Your task to perform on an android device: toggle translation in the chrome app Image 0: 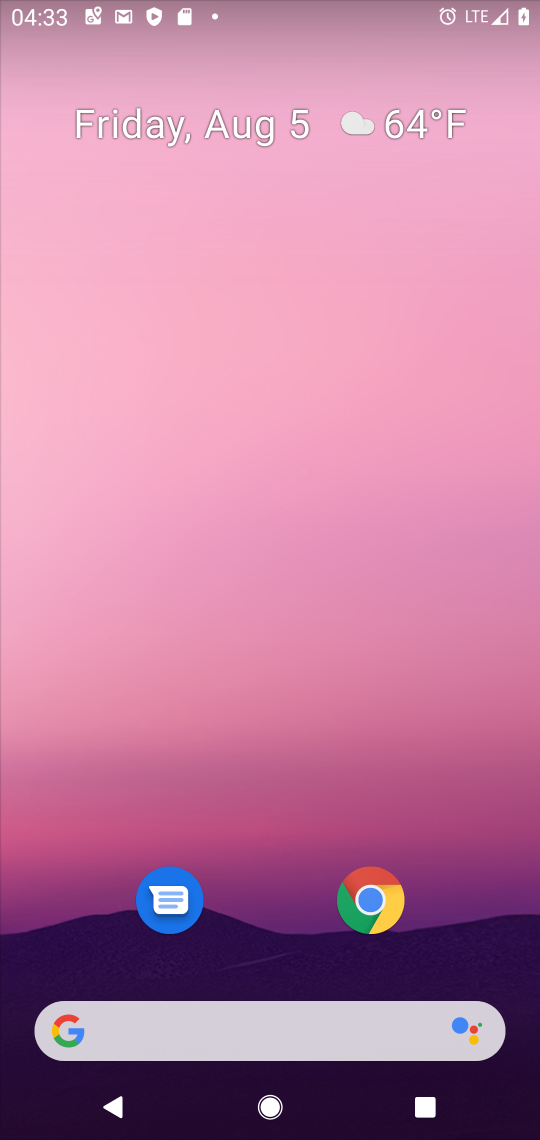
Step 0: press back button
Your task to perform on an android device: toggle translation in the chrome app Image 1: 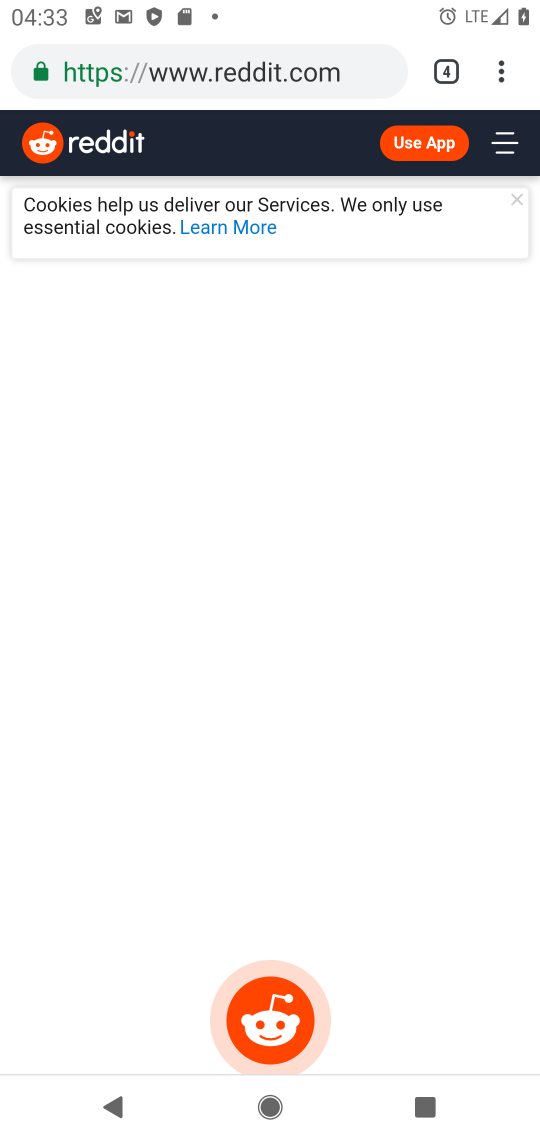
Step 1: click (236, 850)
Your task to perform on an android device: toggle translation in the chrome app Image 2: 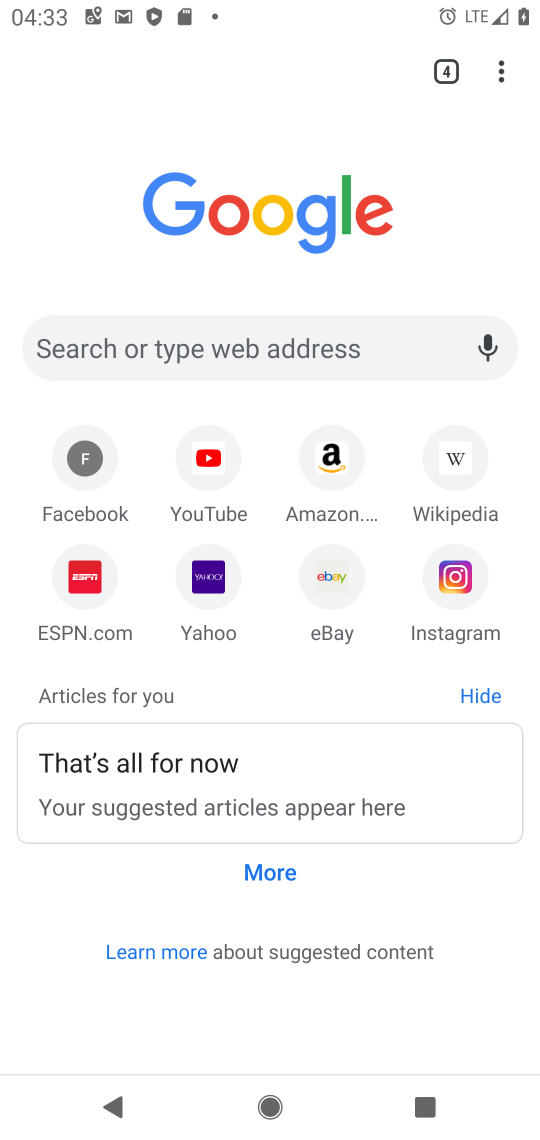
Step 2: drag from (89, 7) to (420, 138)
Your task to perform on an android device: toggle translation in the chrome app Image 3: 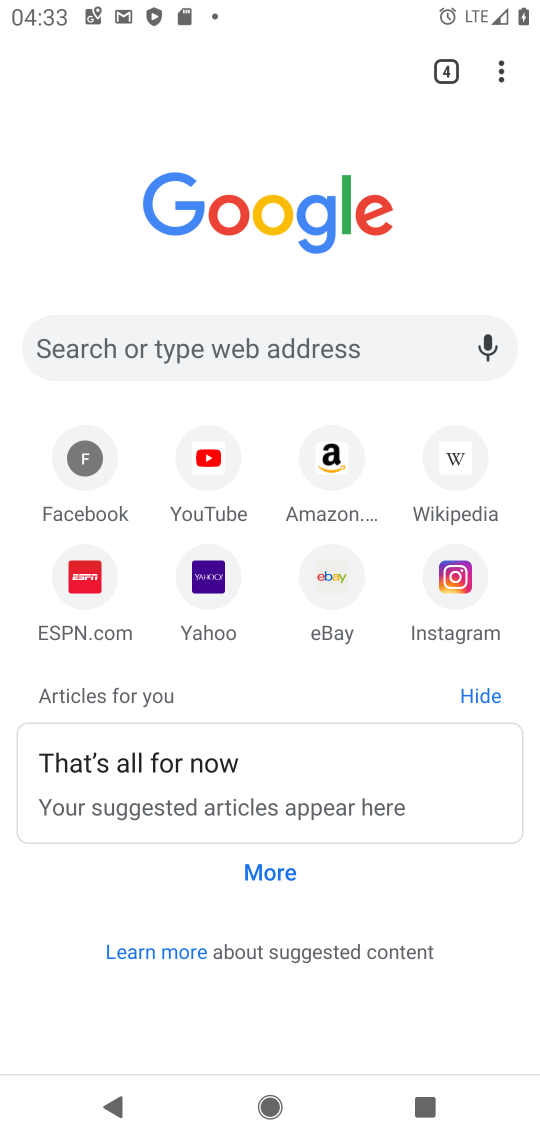
Step 3: drag from (502, 74) to (271, 598)
Your task to perform on an android device: toggle translation in the chrome app Image 4: 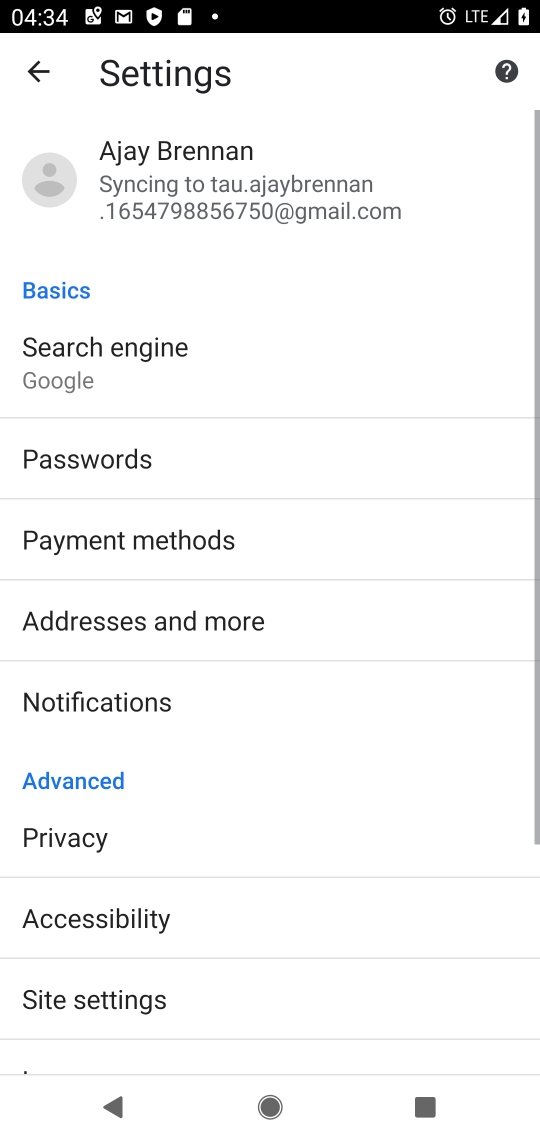
Step 4: drag from (208, 982) to (395, 159)
Your task to perform on an android device: toggle translation in the chrome app Image 5: 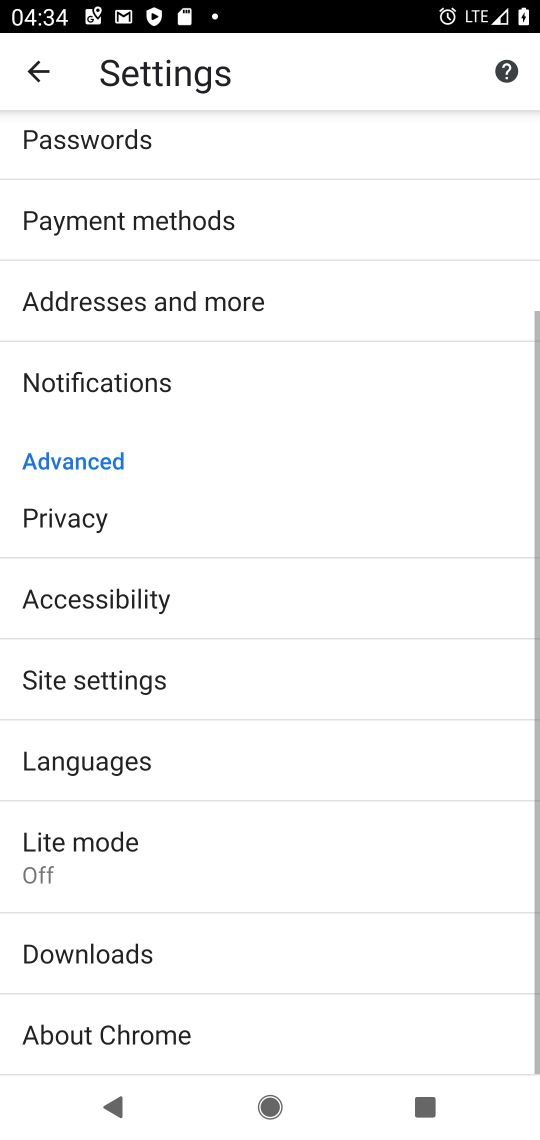
Step 5: click (97, 745)
Your task to perform on an android device: toggle translation in the chrome app Image 6: 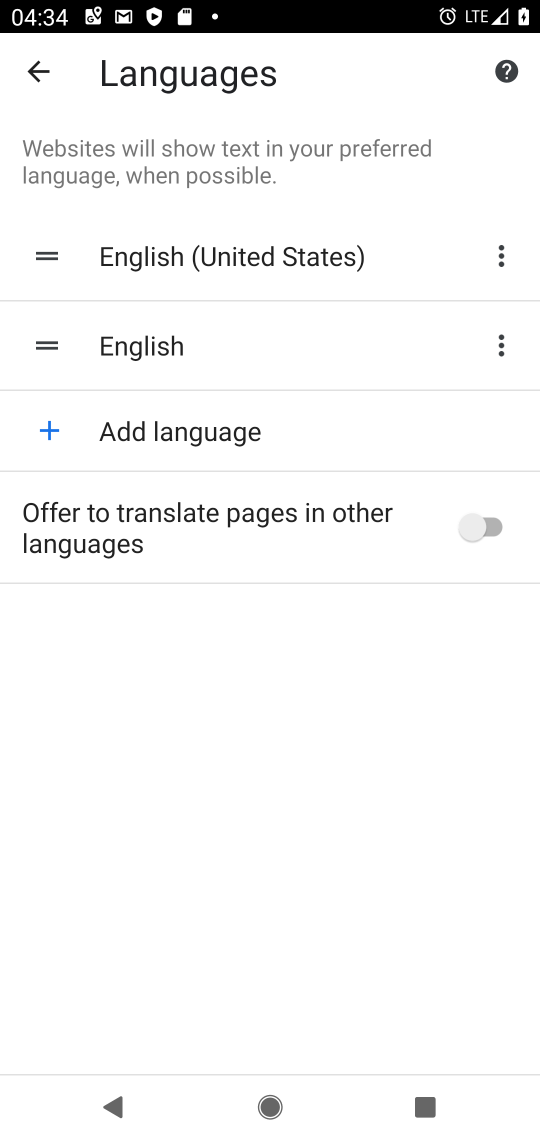
Step 6: click (481, 521)
Your task to perform on an android device: toggle translation in the chrome app Image 7: 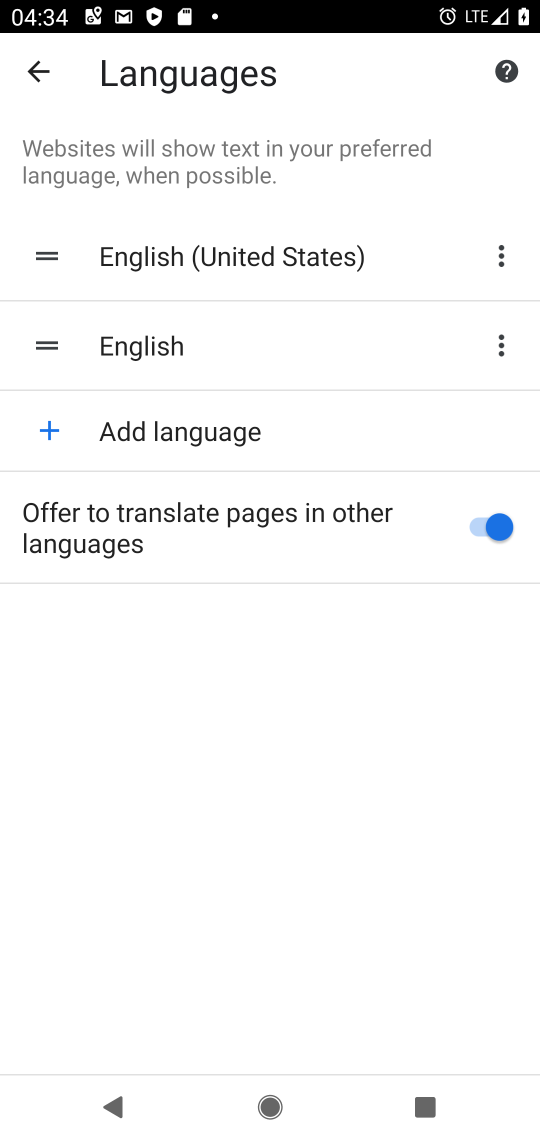
Step 7: task complete